Your task to perform on an android device: turn off location Image 0: 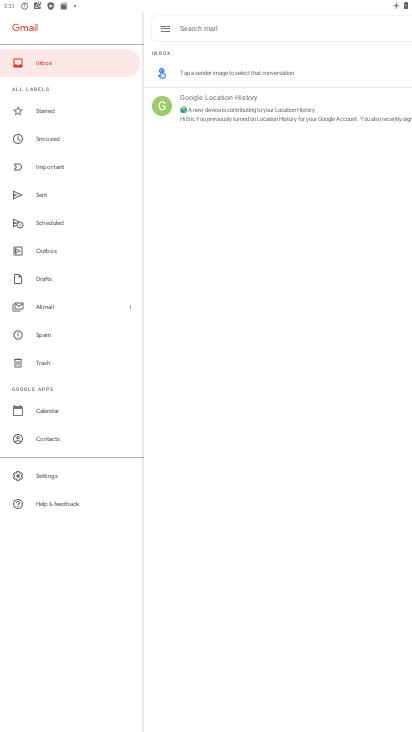
Step 0: press home button
Your task to perform on an android device: turn off location Image 1: 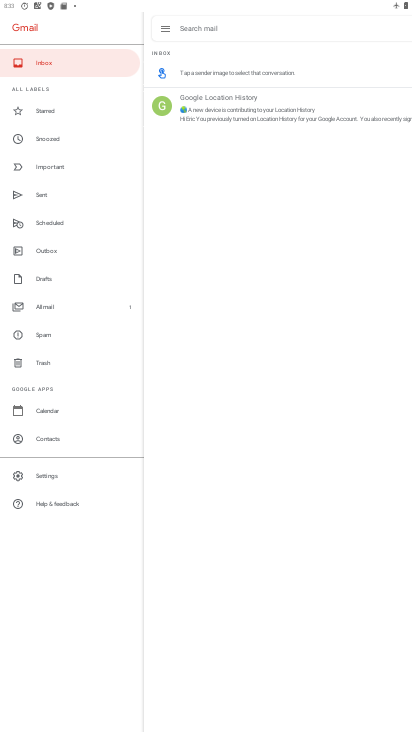
Step 1: press home button
Your task to perform on an android device: turn off location Image 2: 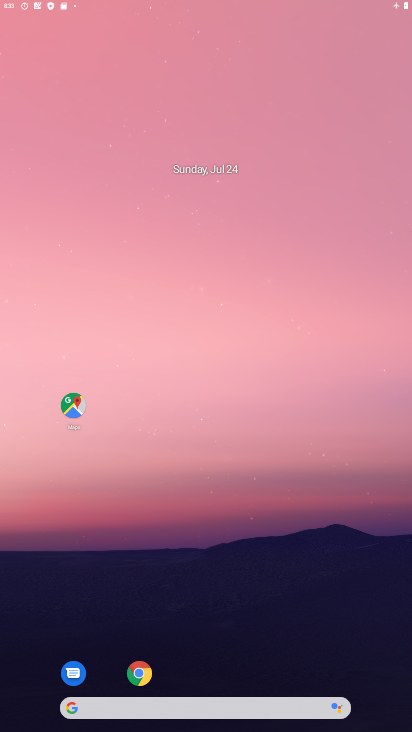
Step 2: drag from (127, 606) to (175, 86)
Your task to perform on an android device: turn off location Image 3: 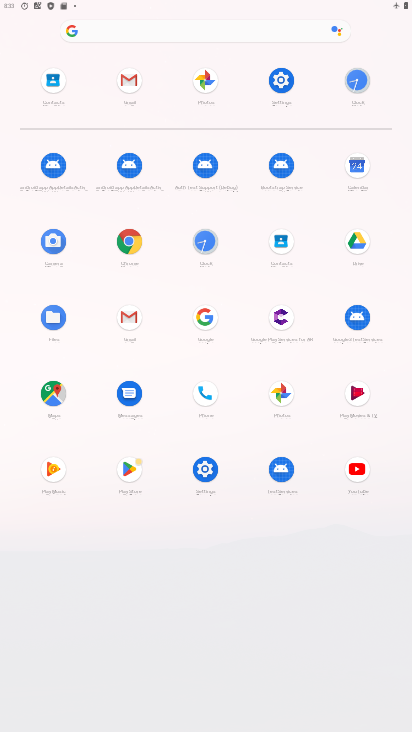
Step 3: click (281, 83)
Your task to perform on an android device: turn off location Image 4: 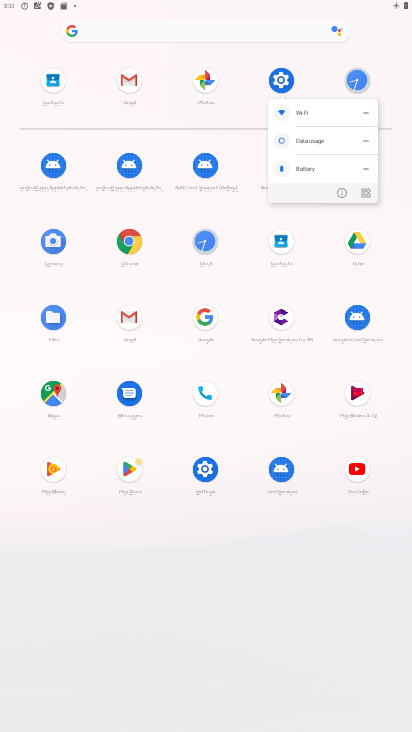
Step 4: click (347, 193)
Your task to perform on an android device: turn off location Image 5: 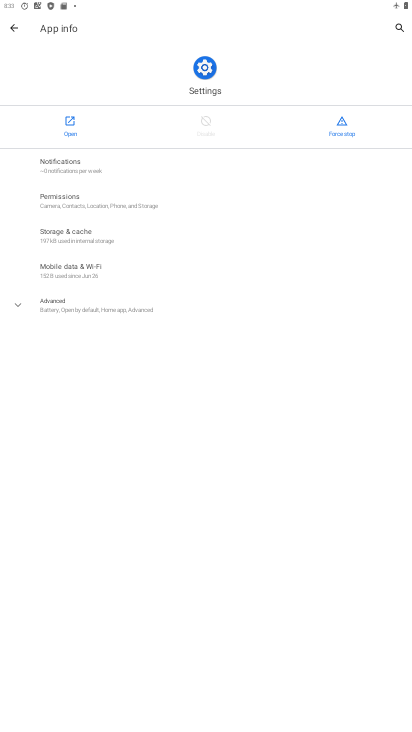
Step 5: click (69, 120)
Your task to perform on an android device: turn off location Image 6: 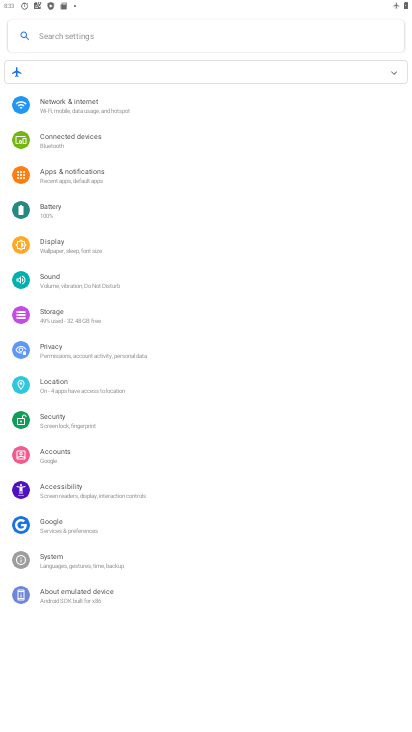
Step 6: click (69, 392)
Your task to perform on an android device: turn off location Image 7: 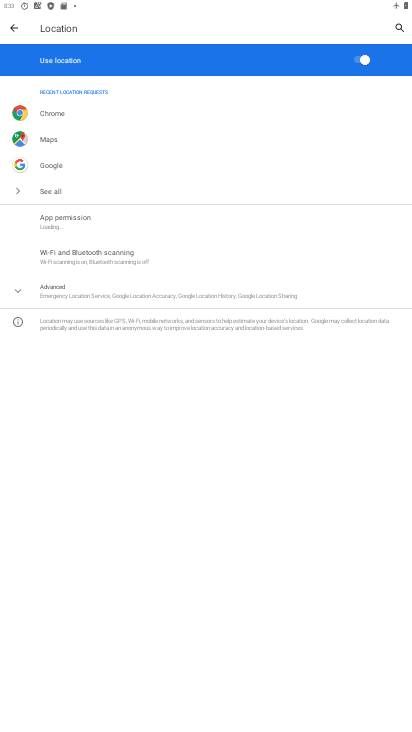
Step 7: drag from (212, 500) to (247, 287)
Your task to perform on an android device: turn off location Image 8: 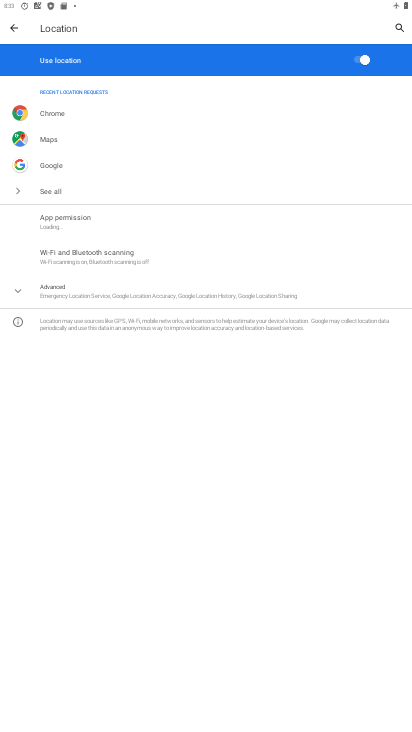
Step 8: click (357, 59)
Your task to perform on an android device: turn off location Image 9: 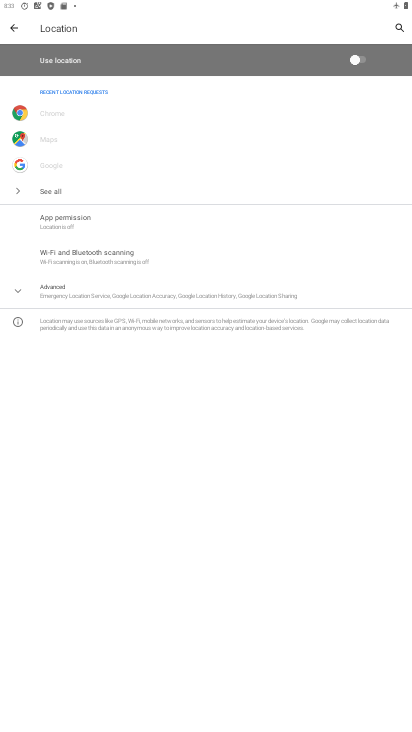
Step 9: task complete